Your task to perform on an android device: Go to Android settings Image 0: 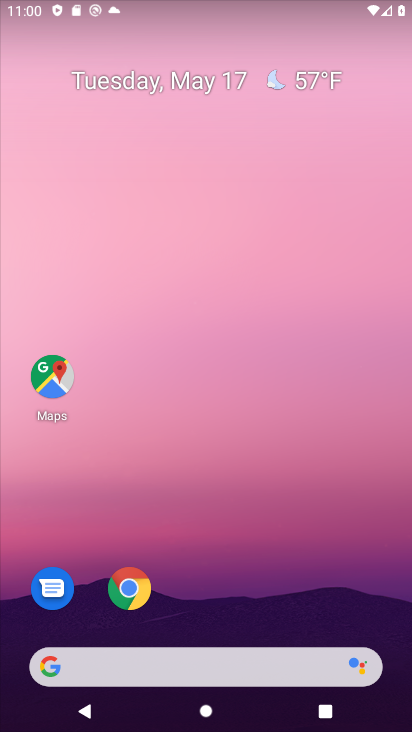
Step 0: drag from (231, 564) to (225, 174)
Your task to perform on an android device: Go to Android settings Image 1: 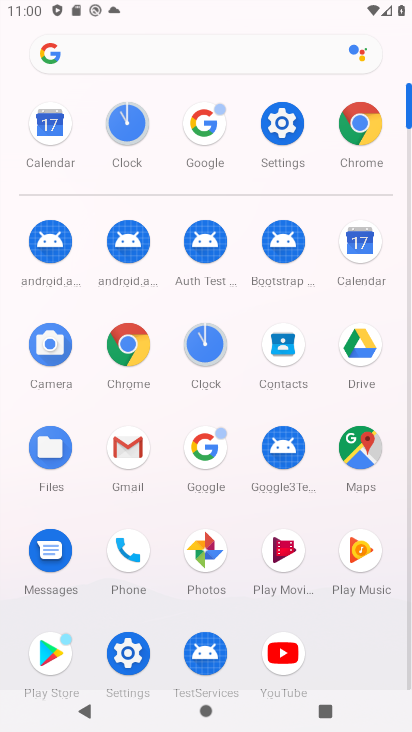
Step 1: click (283, 116)
Your task to perform on an android device: Go to Android settings Image 2: 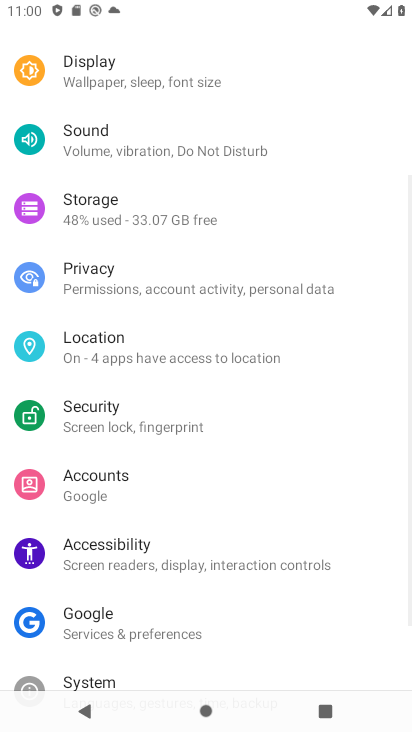
Step 2: drag from (113, 611) to (104, 277)
Your task to perform on an android device: Go to Android settings Image 3: 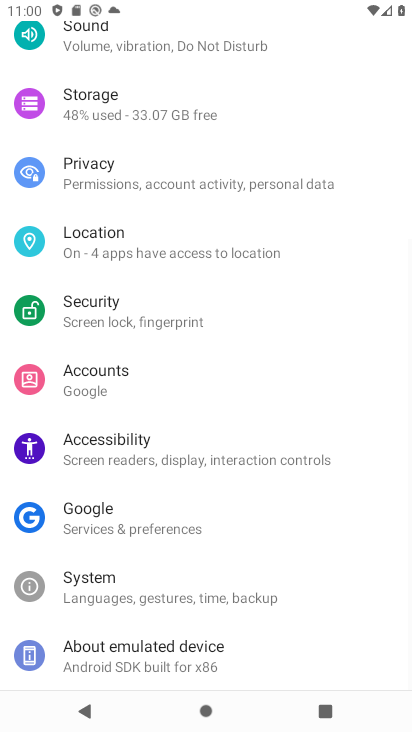
Step 3: click (188, 651)
Your task to perform on an android device: Go to Android settings Image 4: 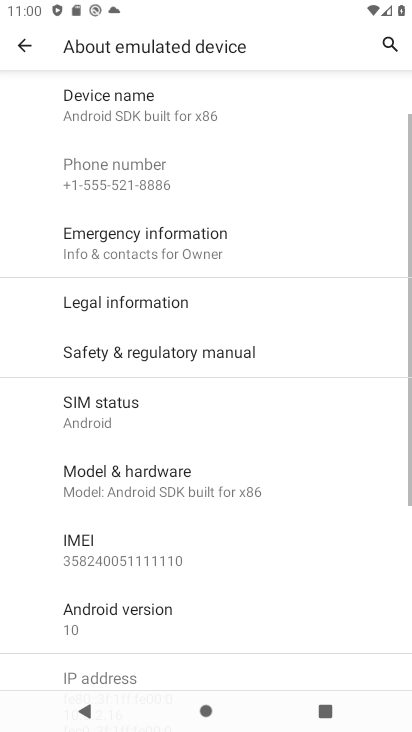
Step 4: drag from (230, 563) to (279, 330)
Your task to perform on an android device: Go to Android settings Image 5: 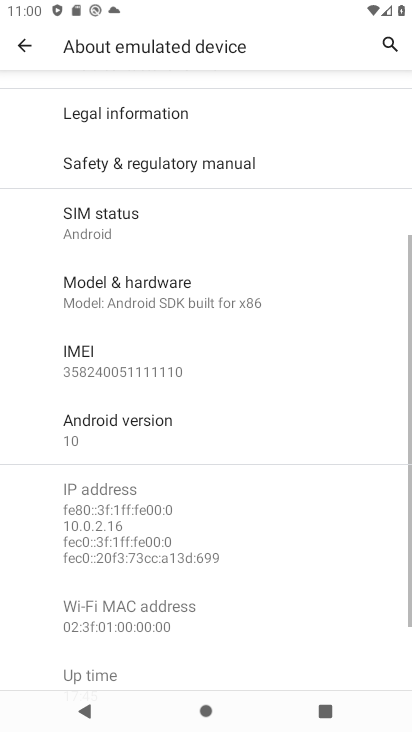
Step 5: click (182, 426)
Your task to perform on an android device: Go to Android settings Image 6: 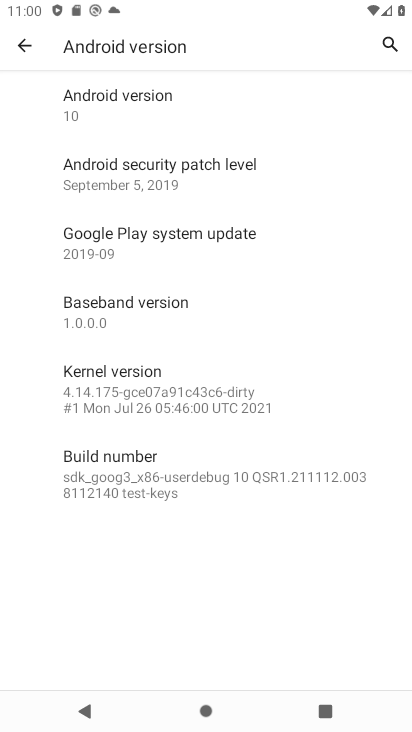
Step 6: task complete